Your task to perform on an android device: make emails show in primary in the gmail app Image 0: 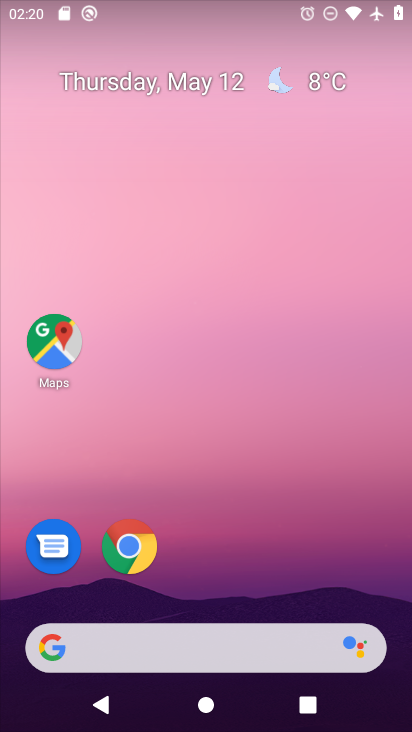
Step 0: drag from (120, 638) to (264, 128)
Your task to perform on an android device: make emails show in primary in the gmail app Image 1: 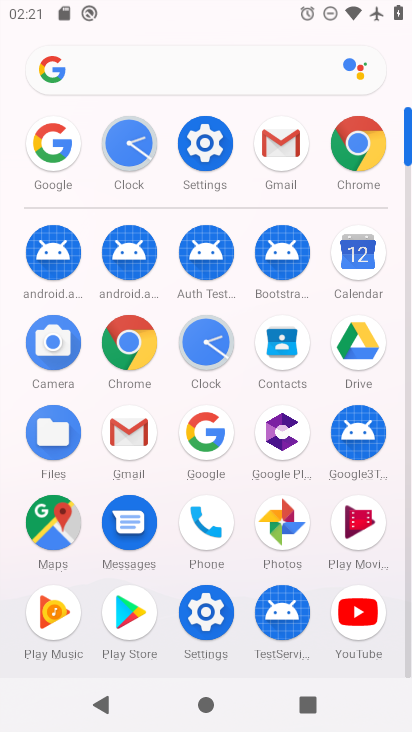
Step 1: click (276, 154)
Your task to perform on an android device: make emails show in primary in the gmail app Image 2: 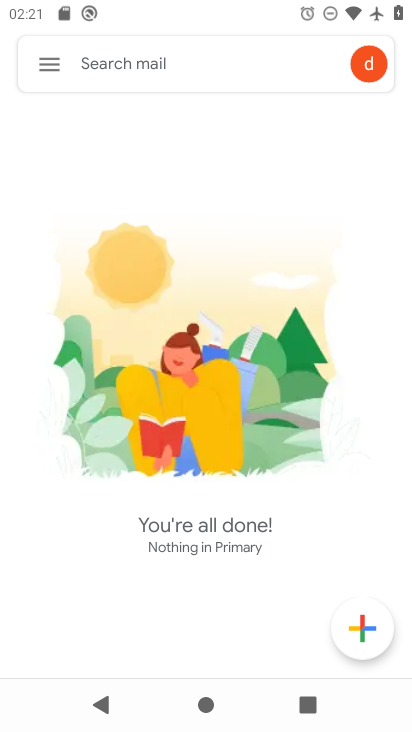
Step 2: click (50, 66)
Your task to perform on an android device: make emails show in primary in the gmail app Image 3: 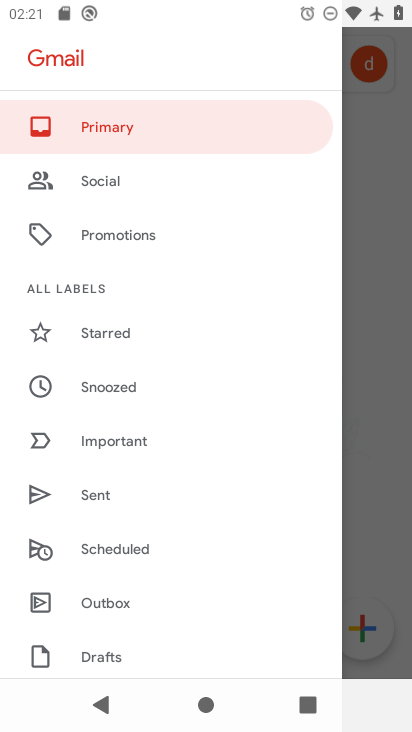
Step 3: drag from (155, 596) to (278, 143)
Your task to perform on an android device: make emails show in primary in the gmail app Image 4: 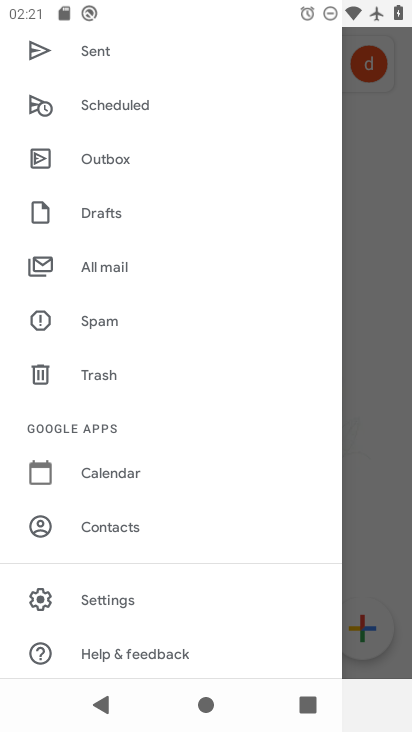
Step 4: click (97, 594)
Your task to perform on an android device: make emails show in primary in the gmail app Image 5: 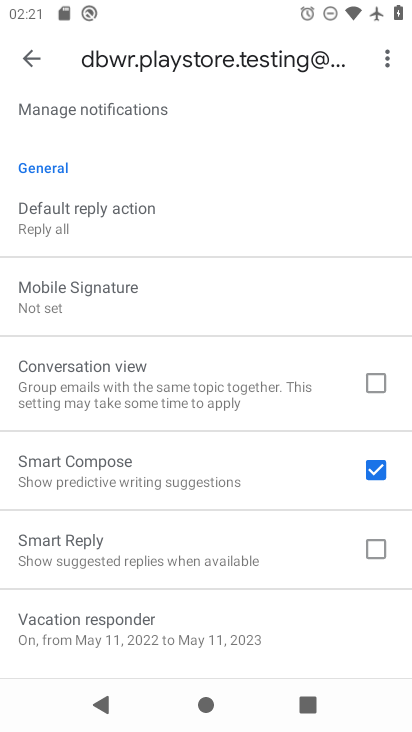
Step 5: drag from (265, 243) to (205, 585)
Your task to perform on an android device: make emails show in primary in the gmail app Image 6: 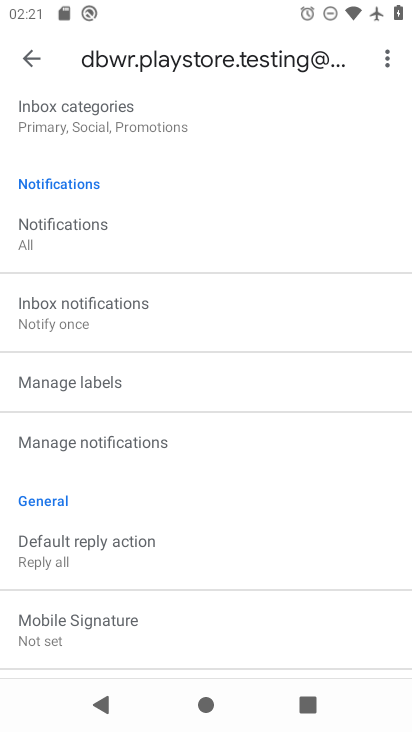
Step 6: drag from (235, 459) to (214, 551)
Your task to perform on an android device: make emails show in primary in the gmail app Image 7: 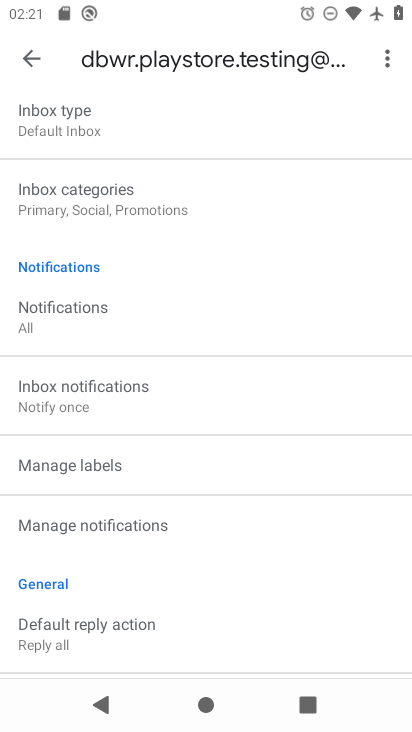
Step 7: click (91, 200)
Your task to perform on an android device: make emails show in primary in the gmail app Image 8: 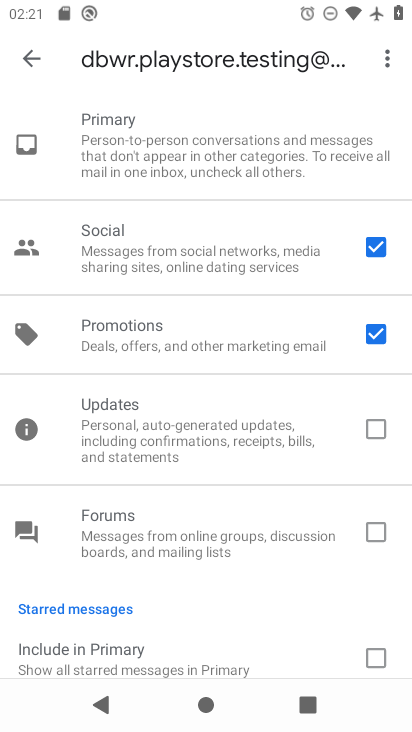
Step 8: click (369, 333)
Your task to perform on an android device: make emails show in primary in the gmail app Image 9: 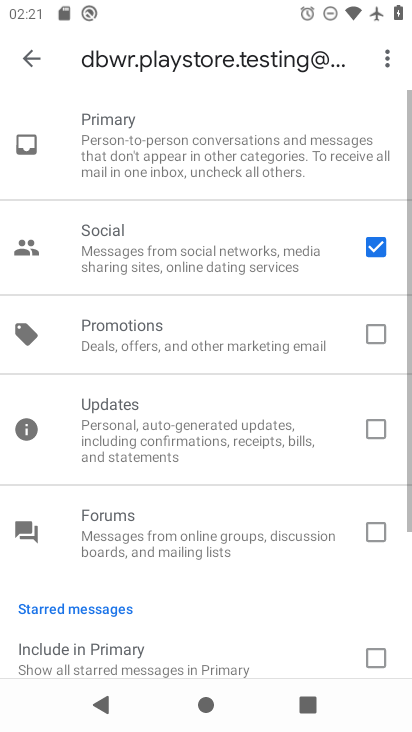
Step 9: click (375, 249)
Your task to perform on an android device: make emails show in primary in the gmail app Image 10: 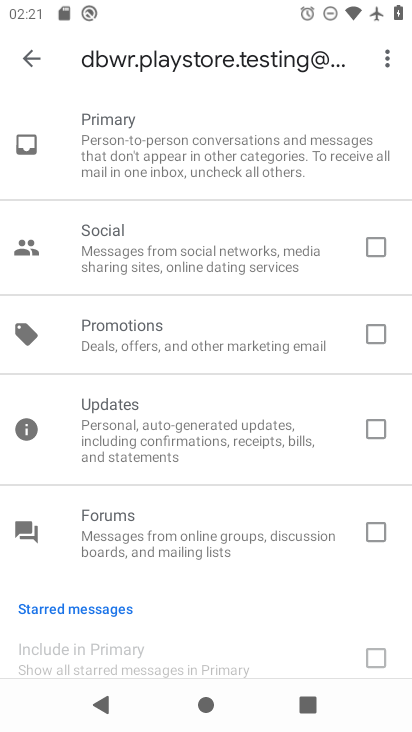
Step 10: click (30, 55)
Your task to perform on an android device: make emails show in primary in the gmail app Image 11: 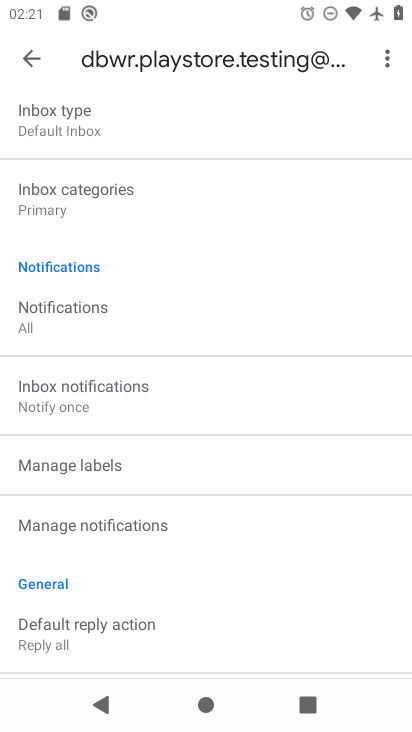
Step 11: task complete